Your task to perform on an android device: turn off translation in the chrome app Image 0: 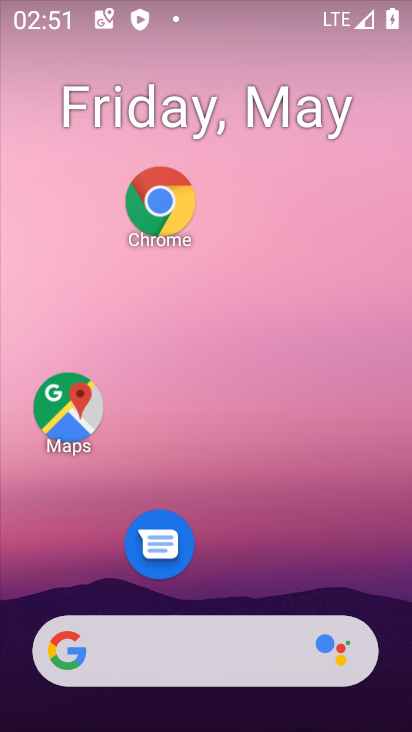
Step 0: drag from (292, 576) to (253, 169)
Your task to perform on an android device: turn off translation in the chrome app Image 1: 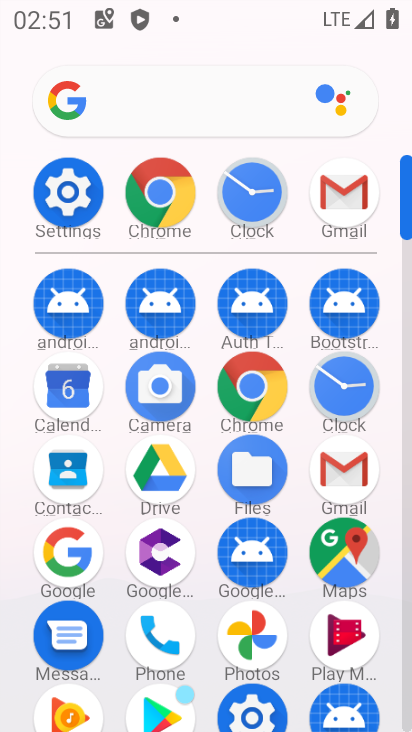
Step 1: click (261, 397)
Your task to perform on an android device: turn off translation in the chrome app Image 2: 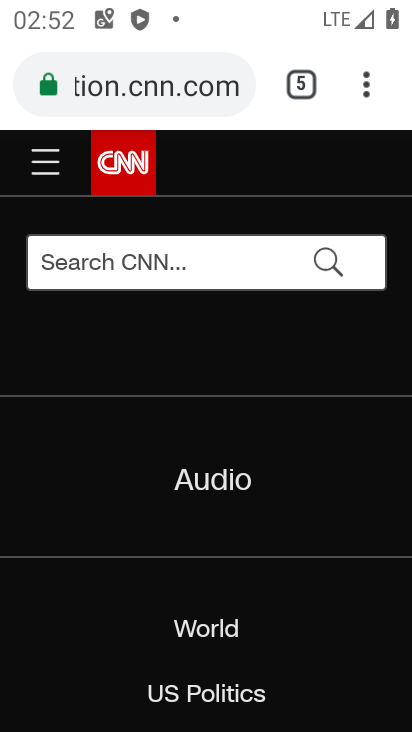
Step 2: click (368, 91)
Your task to perform on an android device: turn off translation in the chrome app Image 3: 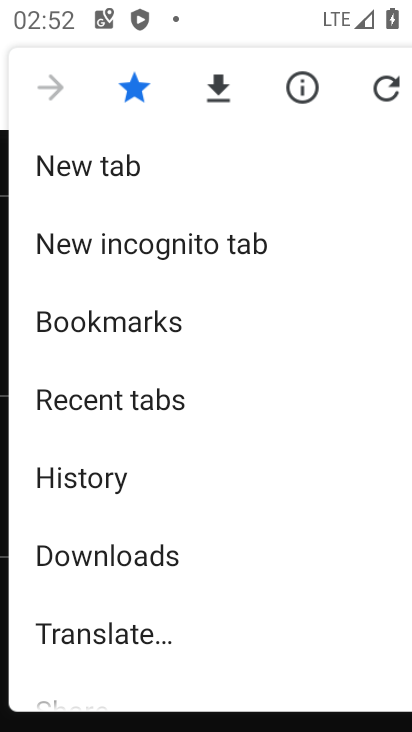
Step 3: drag from (207, 445) to (263, 123)
Your task to perform on an android device: turn off translation in the chrome app Image 4: 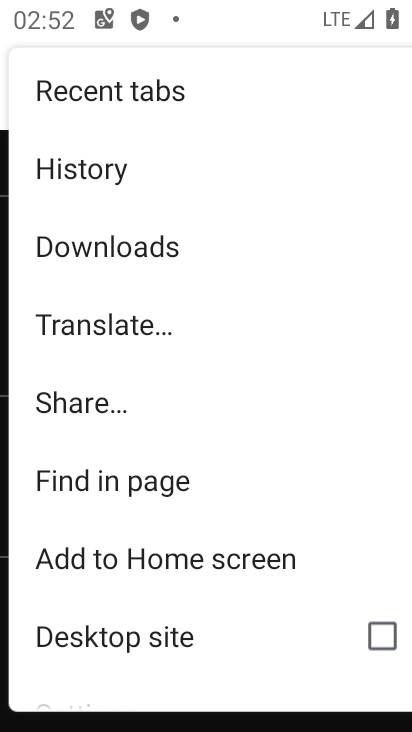
Step 4: drag from (135, 633) to (140, 297)
Your task to perform on an android device: turn off translation in the chrome app Image 5: 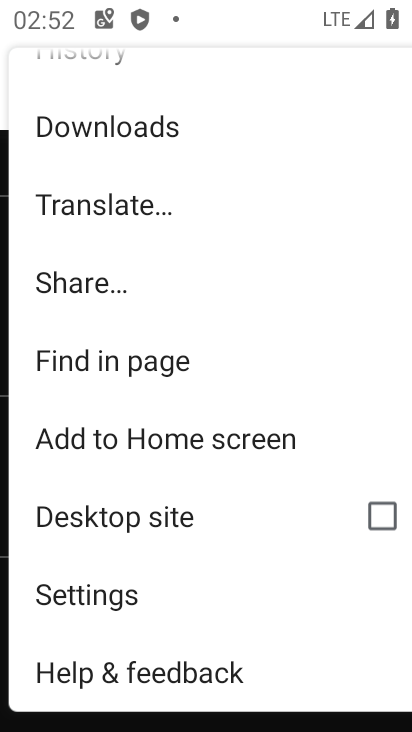
Step 5: click (139, 593)
Your task to perform on an android device: turn off translation in the chrome app Image 6: 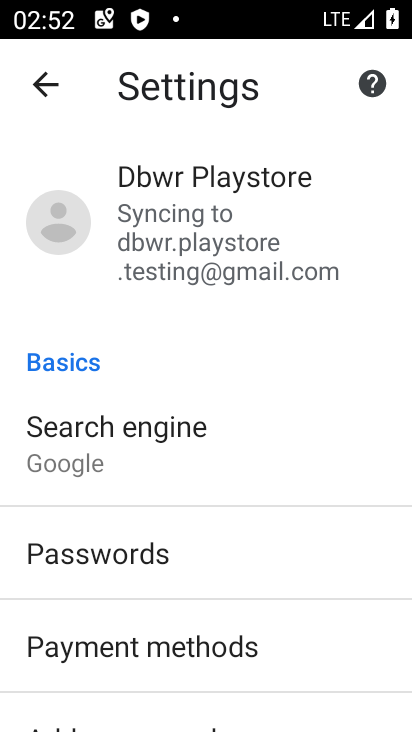
Step 6: drag from (139, 548) to (147, 244)
Your task to perform on an android device: turn off translation in the chrome app Image 7: 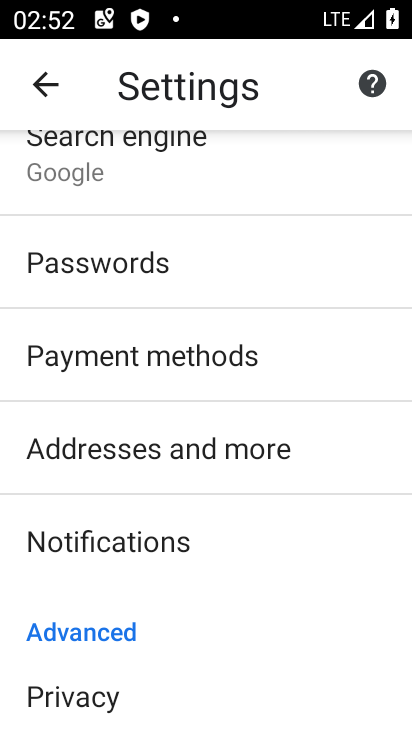
Step 7: drag from (153, 593) to (198, 262)
Your task to perform on an android device: turn off translation in the chrome app Image 8: 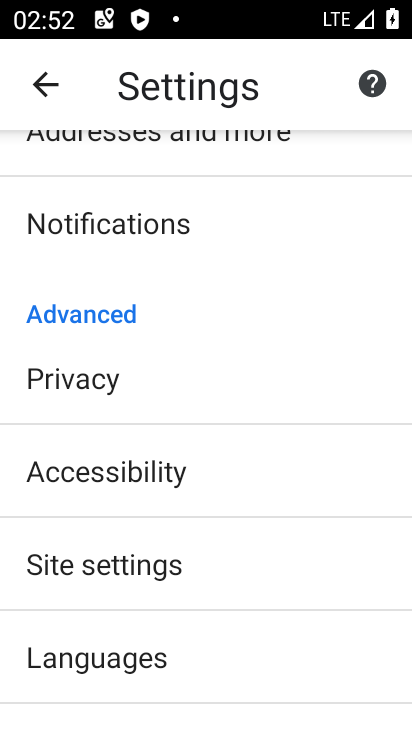
Step 8: drag from (190, 561) to (178, 285)
Your task to perform on an android device: turn off translation in the chrome app Image 9: 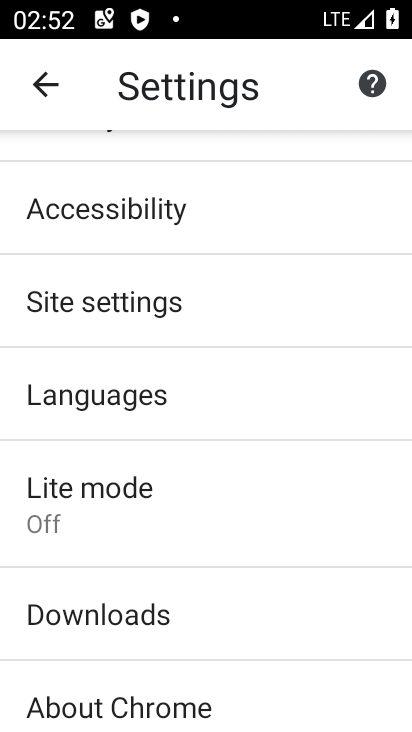
Step 9: click (140, 390)
Your task to perform on an android device: turn off translation in the chrome app Image 10: 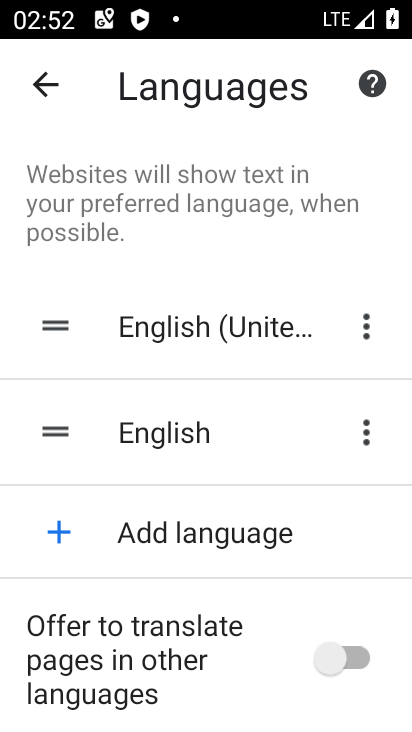
Step 10: task complete